Your task to perform on an android device: Open eBay Image 0: 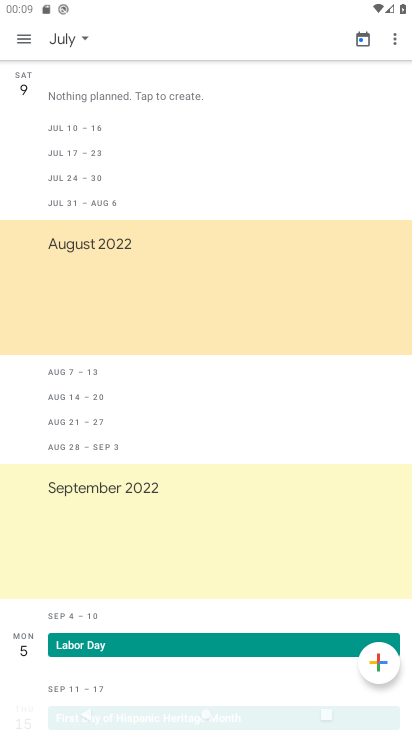
Step 0: press home button
Your task to perform on an android device: Open eBay Image 1: 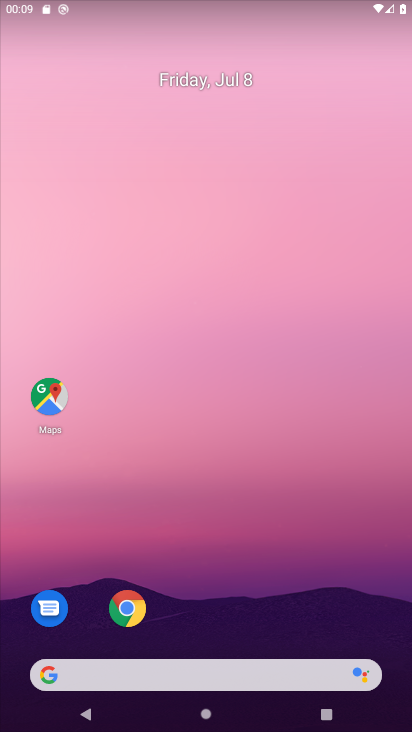
Step 1: drag from (247, 601) to (242, 196)
Your task to perform on an android device: Open eBay Image 2: 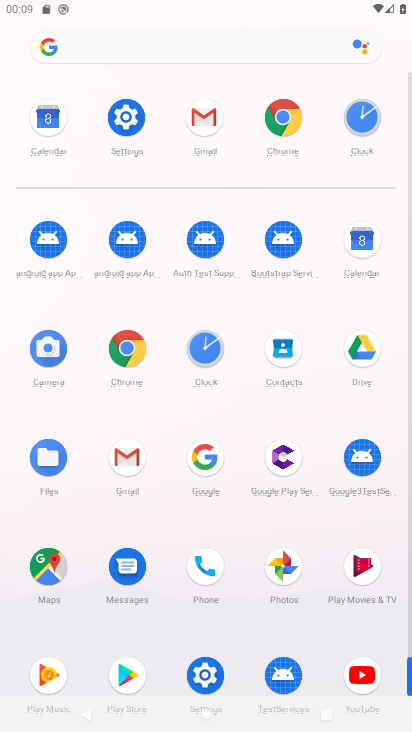
Step 2: click (282, 104)
Your task to perform on an android device: Open eBay Image 3: 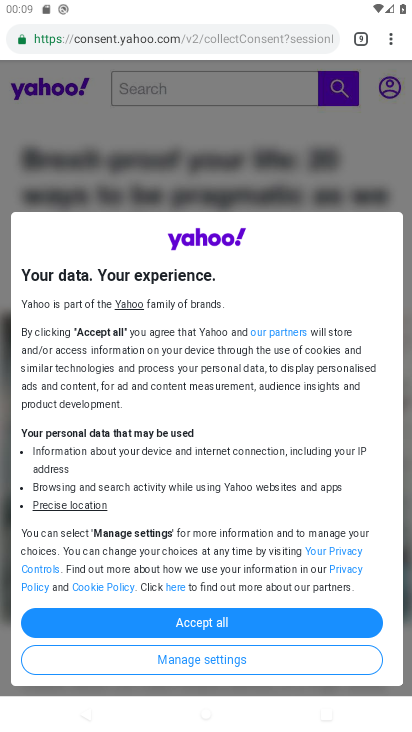
Step 3: click (398, 37)
Your task to perform on an android device: Open eBay Image 4: 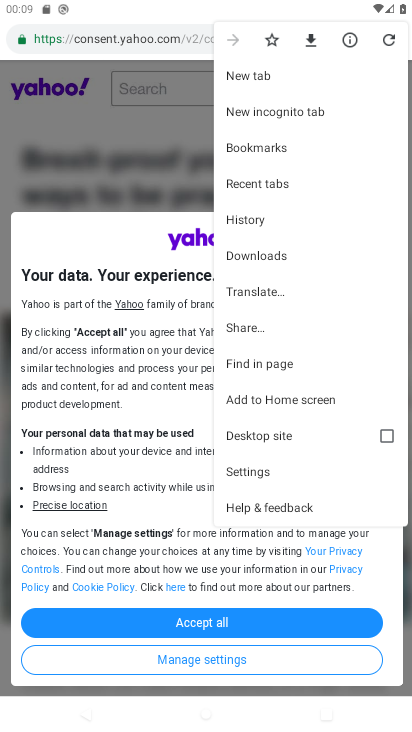
Step 4: click (258, 76)
Your task to perform on an android device: Open eBay Image 5: 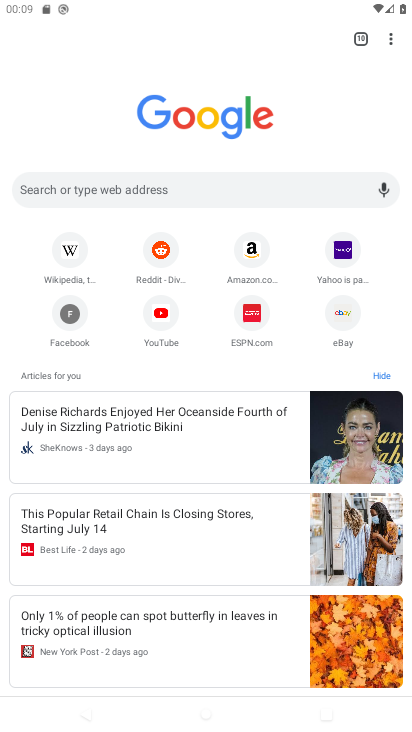
Step 5: click (324, 323)
Your task to perform on an android device: Open eBay Image 6: 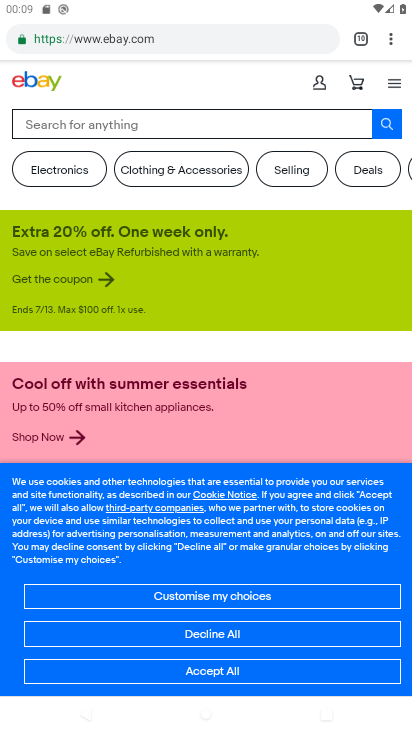
Step 6: task complete